Your task to perform on an android device: move an email to a new category in the gmail app Image 0: 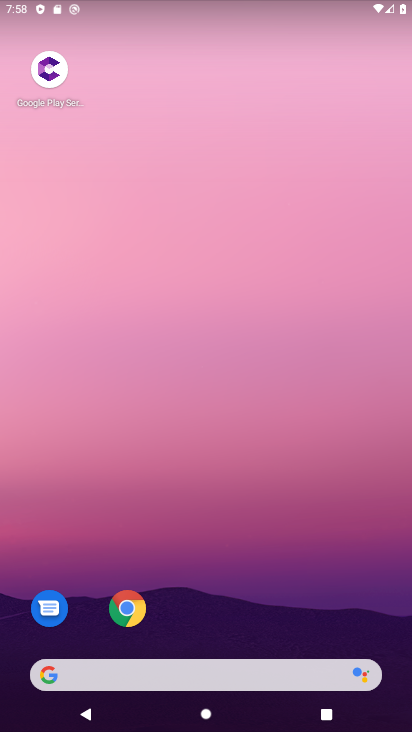
Step 0: drag from (234, 567) to (266, 103)
Your task to perform on an android device: move an email to a new category in the gmail app Image 1: 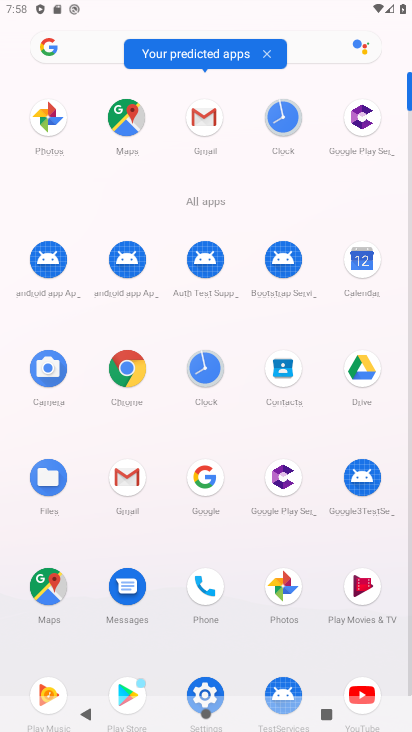
Step 1: click (206, 110)
Your task to perform on an android device: move an email to a new category in the gmail app Image 2: 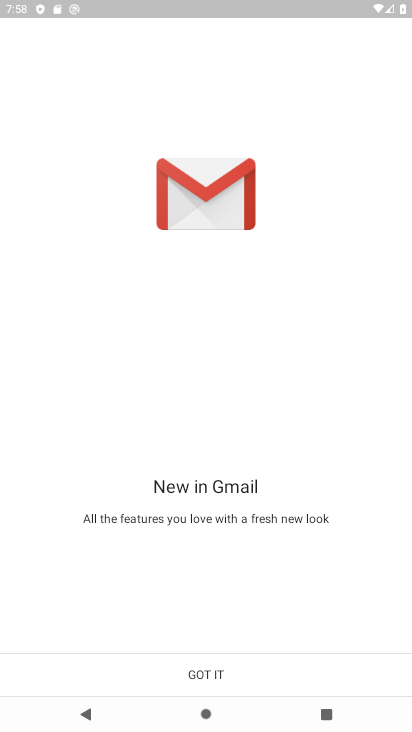
Step 2: click (223, 688)
Your task to perform on an android device: move an email to a new category in the gmail app Image 3: 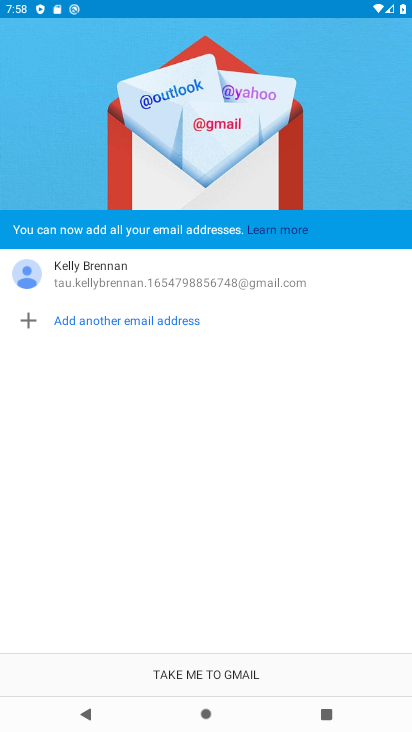
Step 3: click (223, 688)
Your task to perform on an android device: move an email to a new category in the gmail app Image 4: 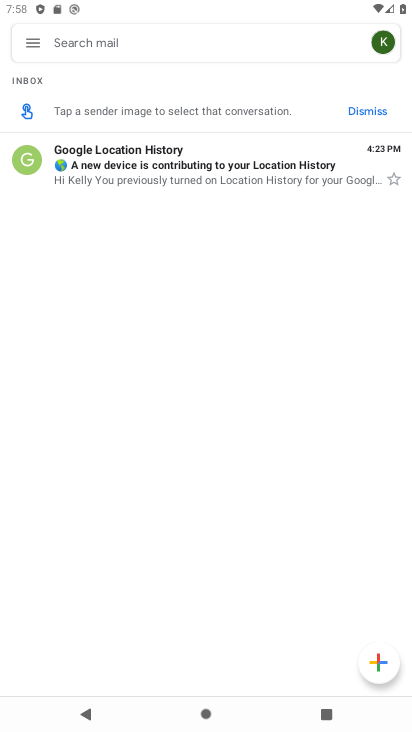
Step 4: click (24, 165)
Your task to perform on an android device: move an email to a new category in the gmail app Image 5: 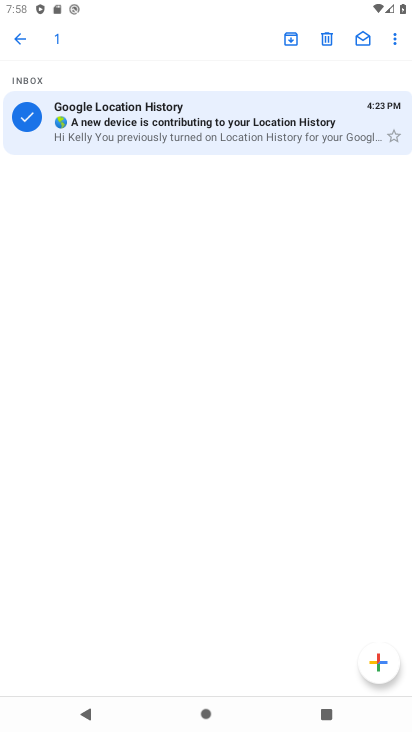
Step 5: click (398, 41)
Your task to perform on an android device: move an email to a new category in the gmail app Image 6: 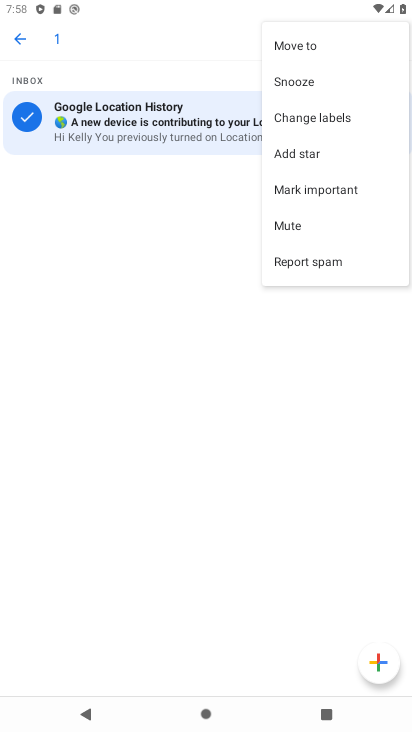
Step 6: click (314, 123)
Your task to perform on an android device: move an email to a new category in the gmail app Image 7: 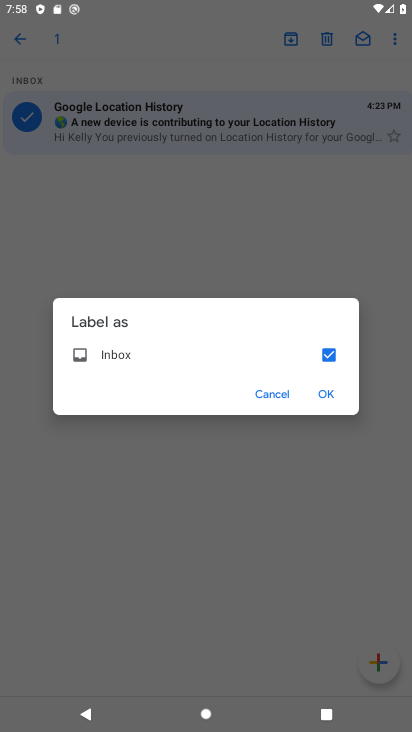
Step 7: press back button
Your task to perform on an android device: move an email to a new category in the gmail app Image 8: 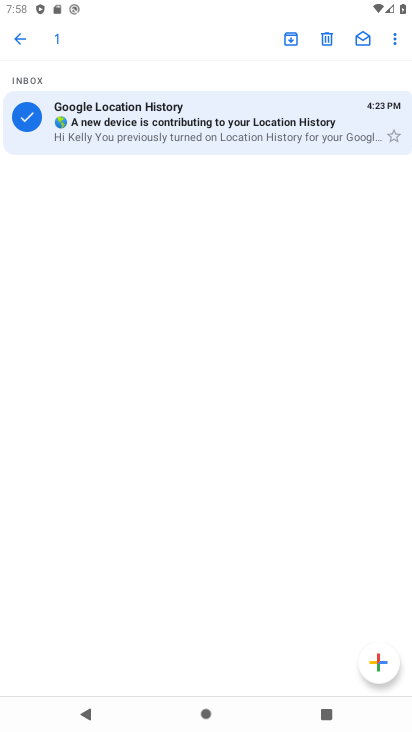
Step 8: click (403, 38)
Your task to perform on an android device: move an email to a new category in the gmail app Image 9: 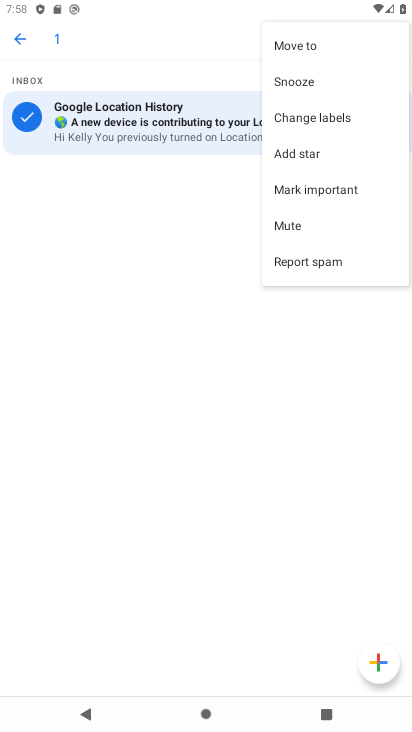
Step 9: click (310, 48)
Your task to perform on an android device: move an email to a new category in the gmail app Image 10: 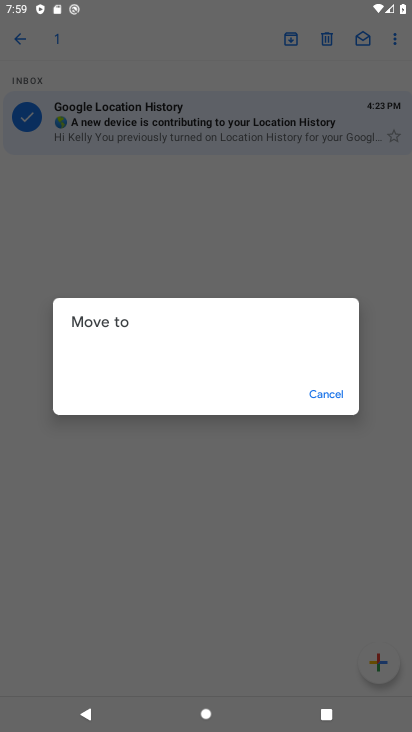
Step 10: task complete